Your task to perform on an android device: turn on airplane mode Image 0: 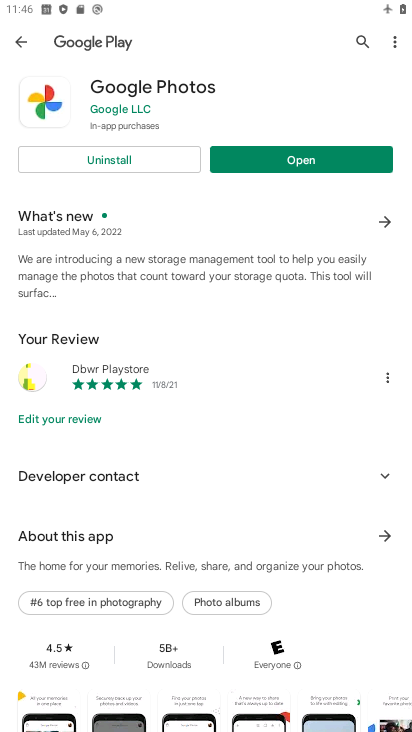
Step 0: click (253, 469)
Your task to perform on an android device: turn on airplane mode Image 1: 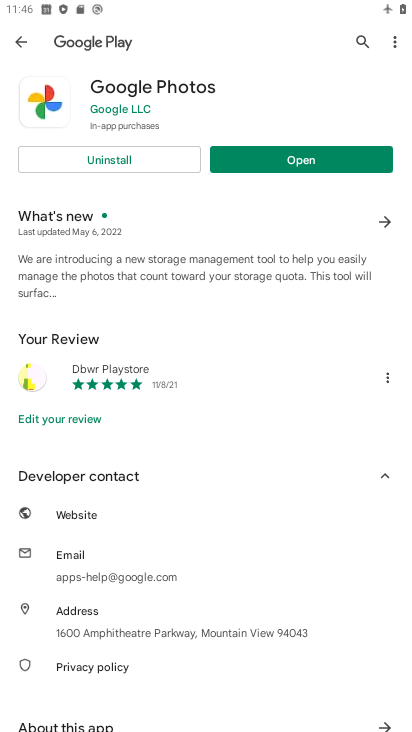
Step 1: press home button
Your task to perform on an android device: turn on airplane mode Image 2: 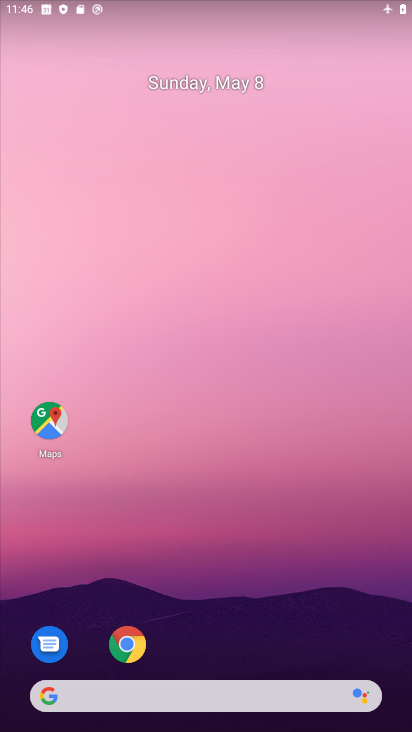
Step 2: drag from (180, 666) to (182, 244)
Your task to perform on an android device: turn on airplane mode Image 3: 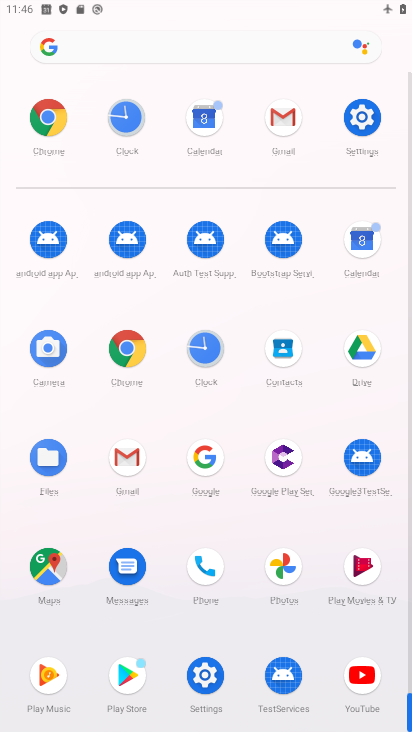
Step 3: click (366, 113)
Your task to perform on an android device: turn on airplane mode Image 4: 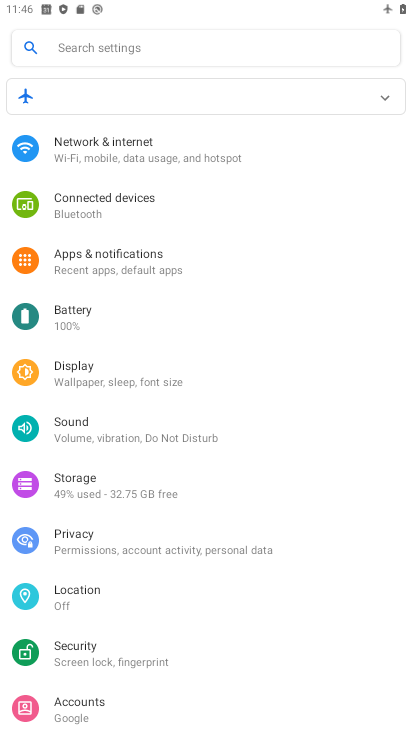
Step 4: click (119, 158)
Your task to perform on an android device: turn on airplane mode Image 5: 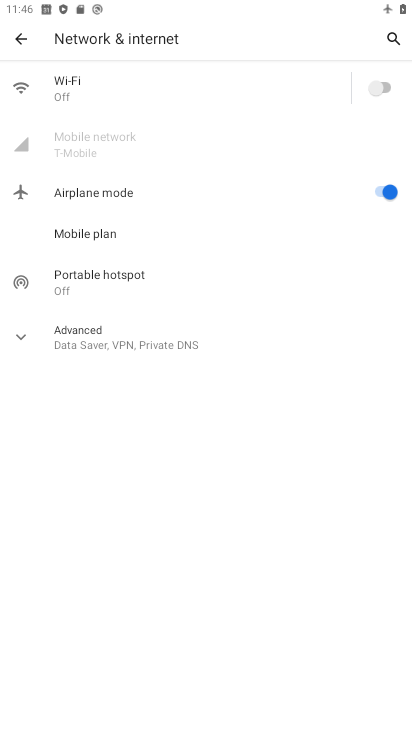
Step 5: task complete